Your task to perform on an android device: empty trash in the gmail app Image 0: 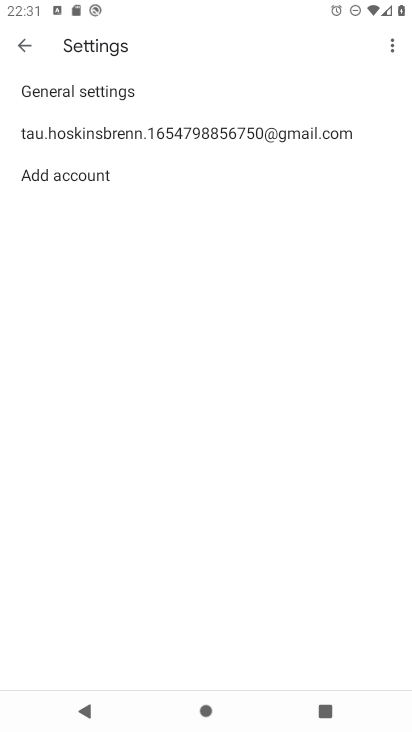
Step 0: press home button
Your task to perform on an android device: empty trash in the gmail app Image 1: 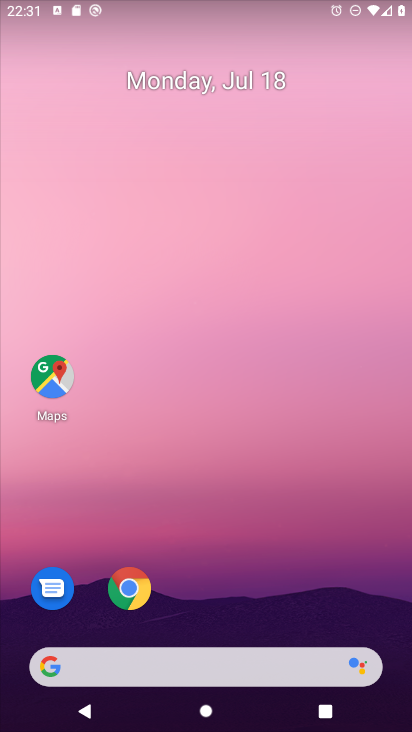
Step 1: drag from (331, 618) to (287, 106)
Your task to perform on an android device: empty trash in the gmail app Image 2: 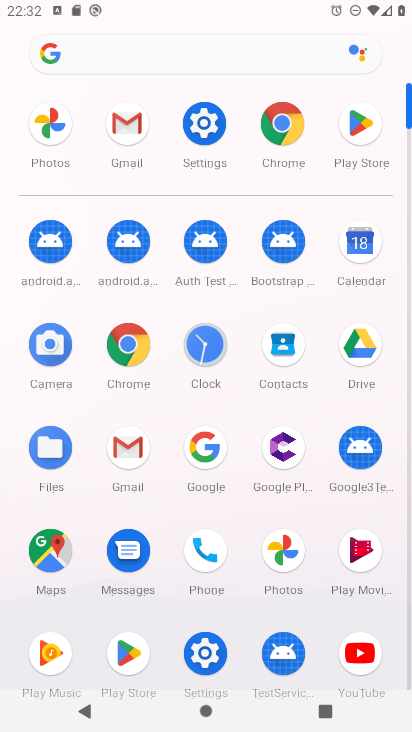
Step 2: click (125, 445)
Your task to perform on an android device: empty trash in the gmail app Image 3: 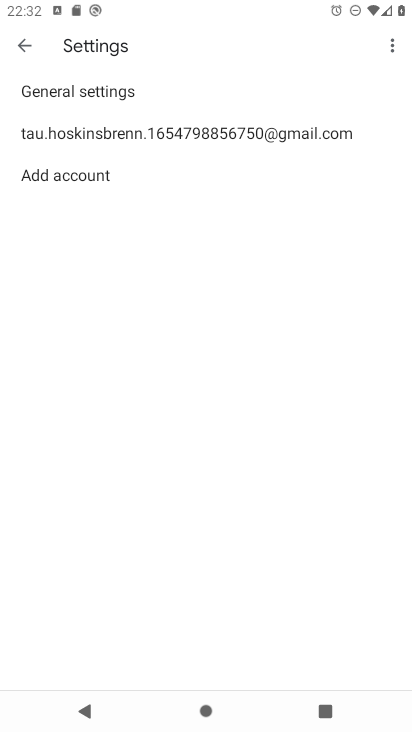
Step 3: press back button
Your task to perform on an android device: empty trash in the gmail app Image 4: 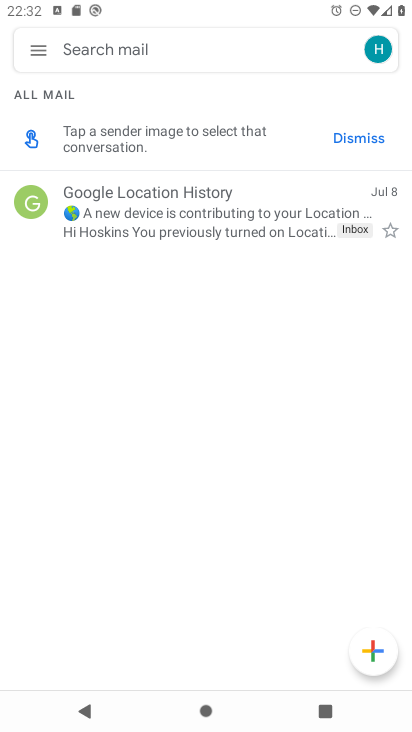
Step 4: click (34, 45)
Your task to perform on an android device: empty trash in the gmail app Image 5: 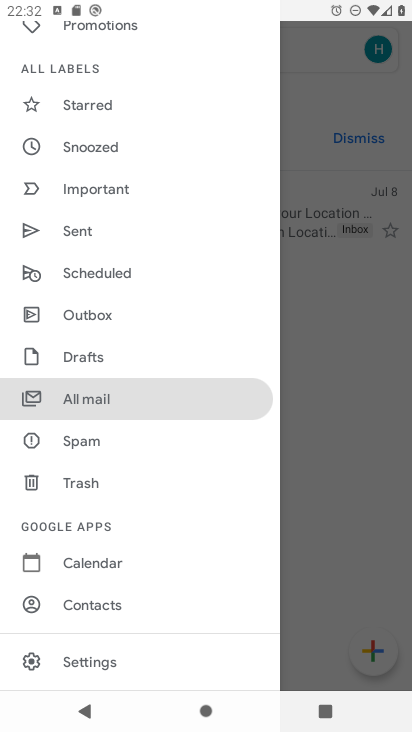
Step 5: click (84, 484)
Your task to perform on an android device: empty trash in the gmail app Image 6: 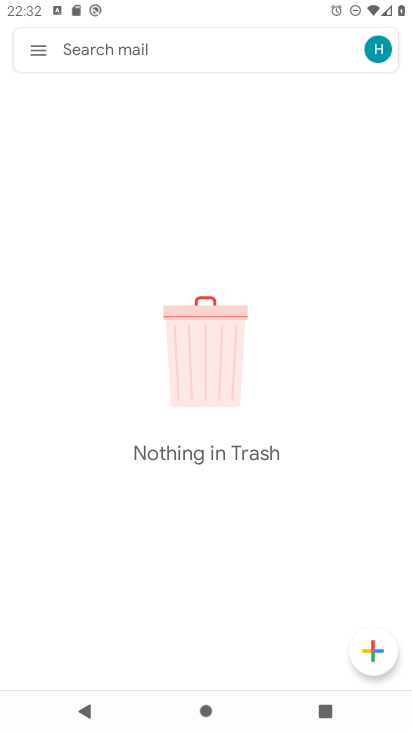
Step 6: task complete